Your task to perform on an android device: change notifications settings Image 0: 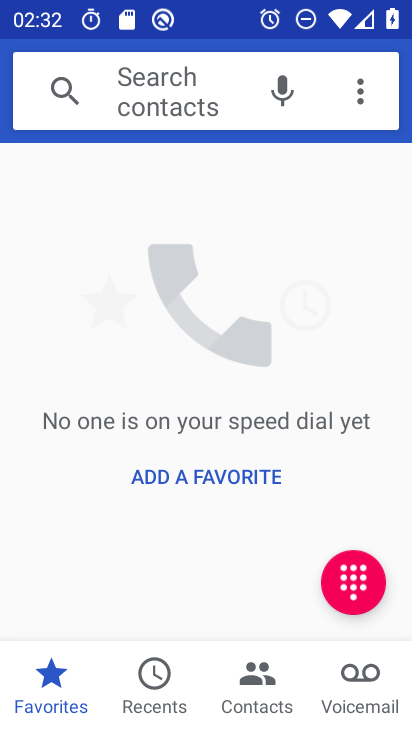
Step 0: press home button
Your task to perform on an android device: change notifications settings Image 1: 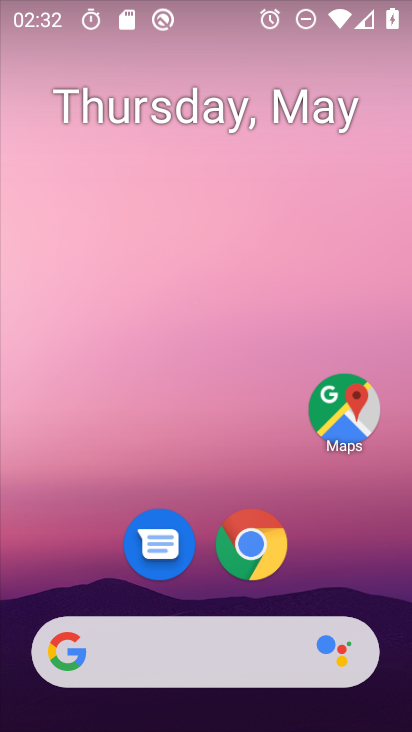
Step 1: drag from (365, 510) to (327, 123)
Your task to perform on an android device: change notifications settings Image 2: 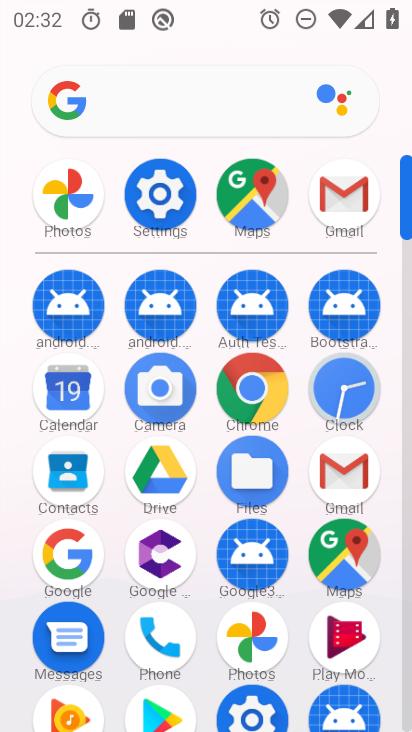
Step 2: click (166, 206)
Your task to perform on an android device: change notifications settings Image 3: 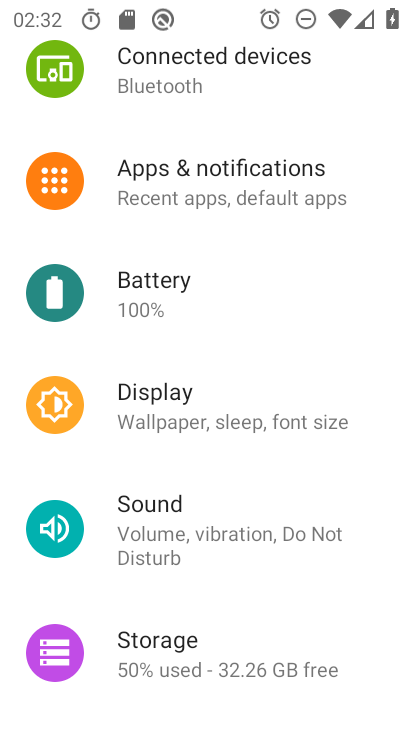
Step 3: drag from (387, 679) to (376, 500)
Your task to perform on an android device: change notifications settings Image 4: 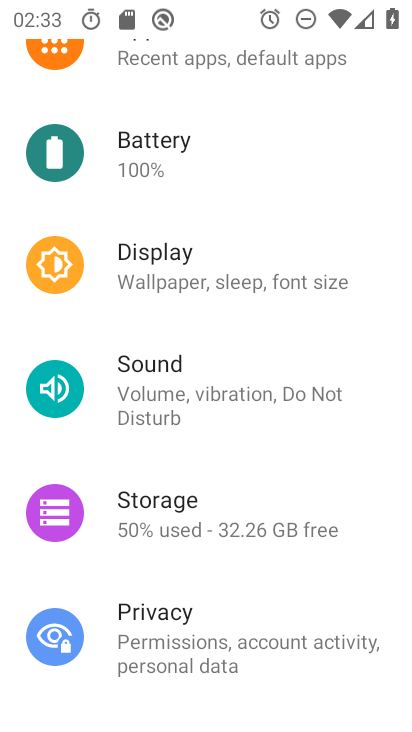
Step 4: drag from (366, 690) to (370, 563)
Your task to perform on an android device: change notifications settings Image 5: 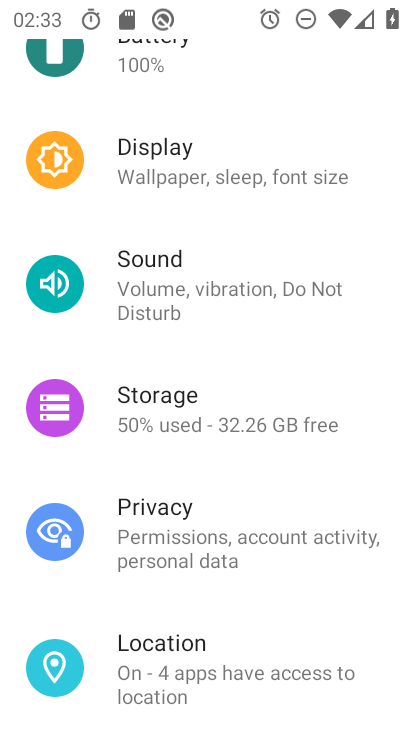
Step 5: drag from (368, 719) to (373, 631)
Your task to perform on an android device: change notifications settings Image 6: 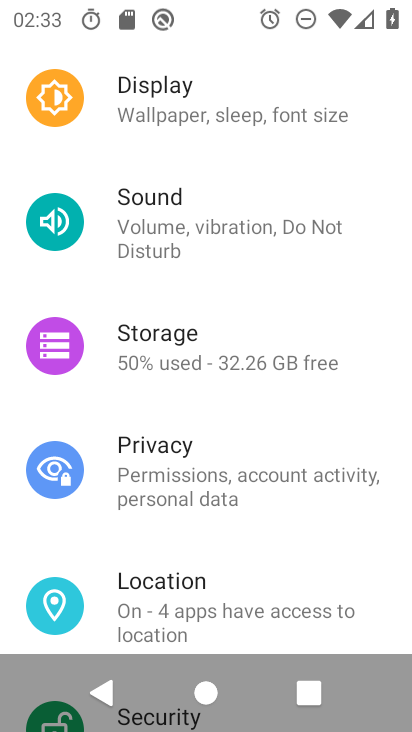
Step 6: drag from (373, 637) to (368, 555)
Your task to perform on an android device: change notifications settings Image 7: 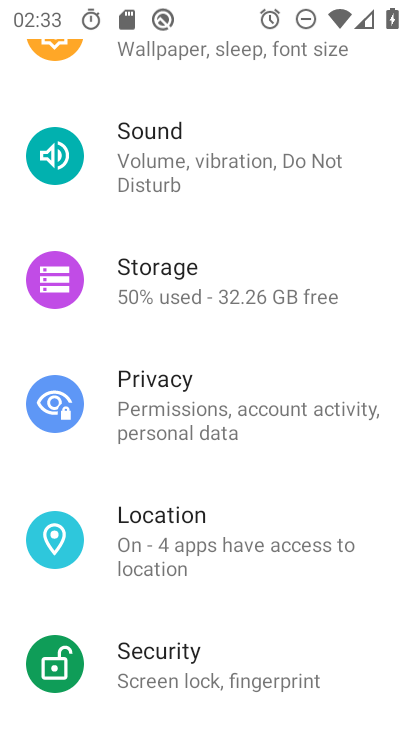
Step 7: drag from (349, 634) to (344, 517)
Your task to perform on an android device: change notifications settings Image 8: 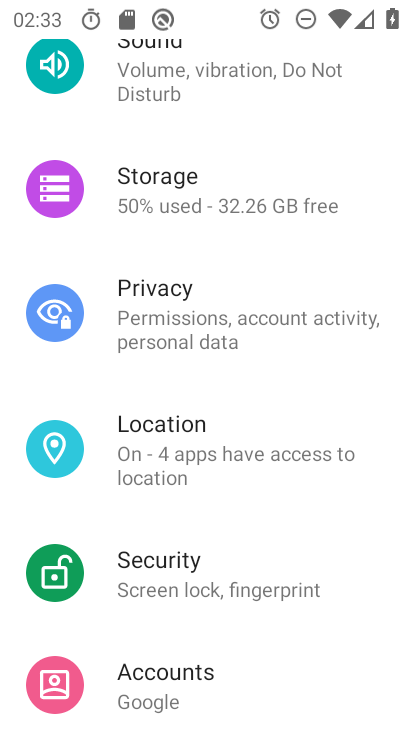
Step 8: drag from (349, 673) to (346, 501)
Your task to perform on an android device: change notifications settings Image 9: 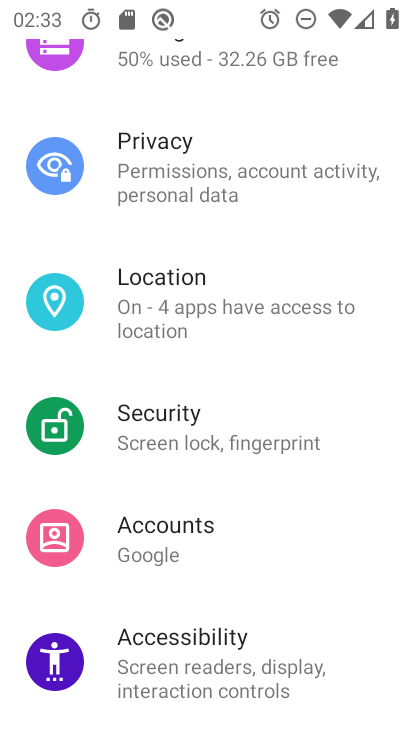
Step 9: drag from (361, 391) to (356, 483)
Your task to perform on an android device: change notifications settings Image 10: 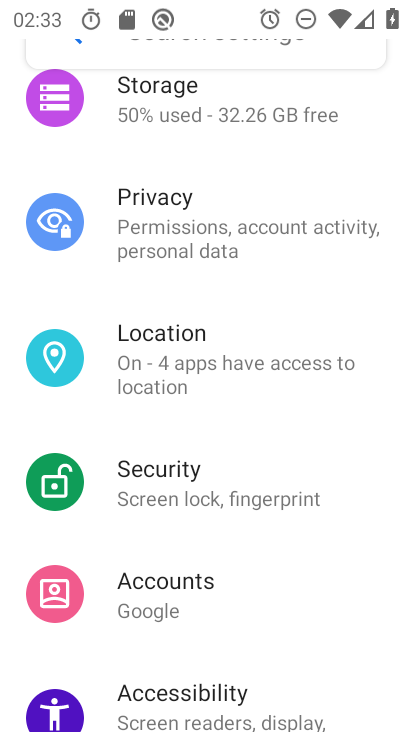
Step 10: drag from (334, 642) to (345, 480)
Your task to perform on an android device: change notifications settings Image 11: 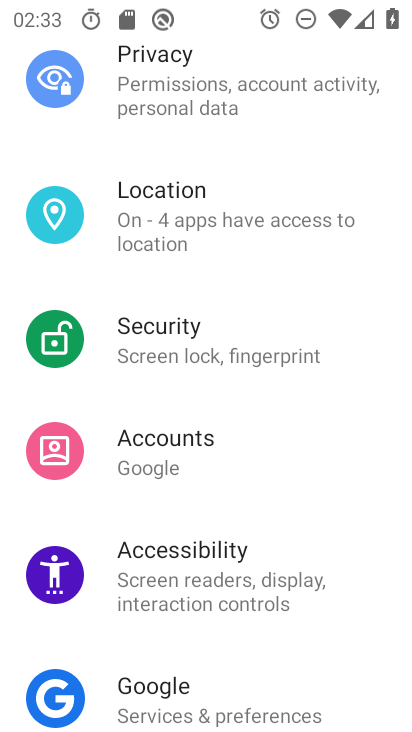
Step 11: drag from (352, 323) to (350, 521)
Your task to perform on an android device: change notifications settings Image 12: 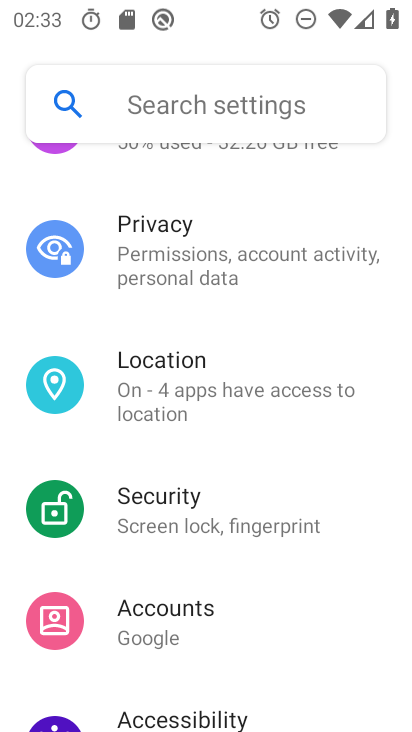
Step 12: drag from (344, 281) to (337, 446)
Your task to perform on an android device: change notifications settings Image 13: 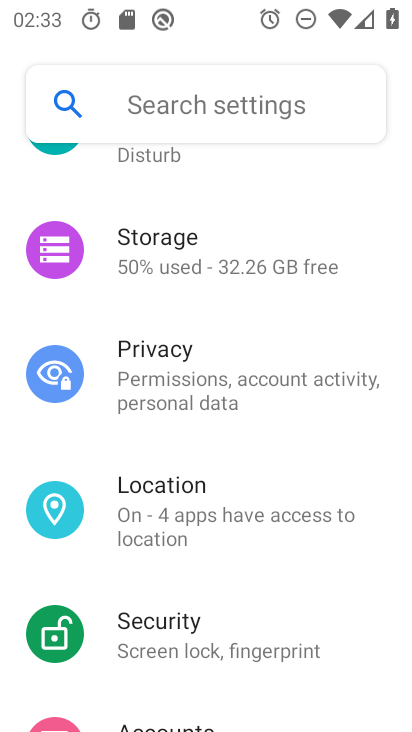
Step 13: drag from (343, 291) to (360, 432)
Your task to perform on an android device: change notifications settings Image 14: 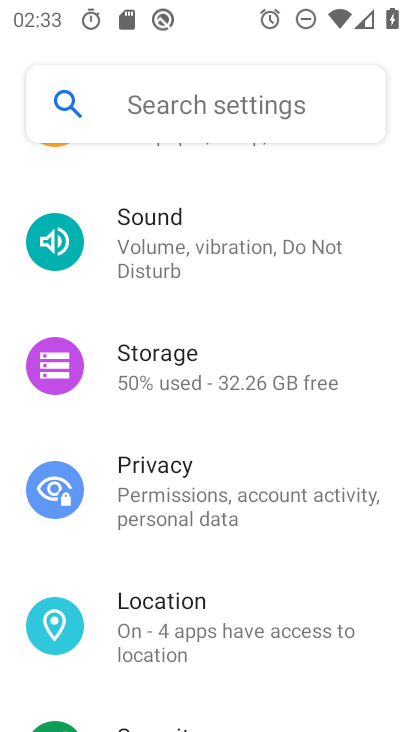
Step 14: drag from (348, 261) to (372, 349)
Your task to perform on an android device: change notifications settings Image 15: 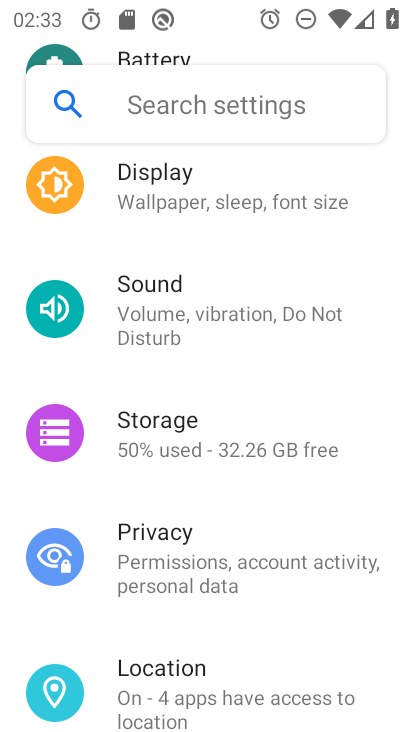
Step 15: drag from (395, 288) to (392, 488)
Your task to perform on an android device: change notifications settings Image 16: 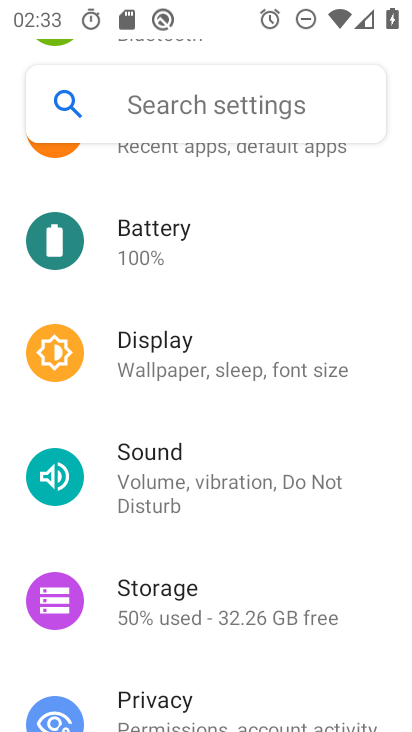
Step 16: drag from (358, 328) to (353, 467)
Your task to perform on an android device: change notifications settings Image 17: 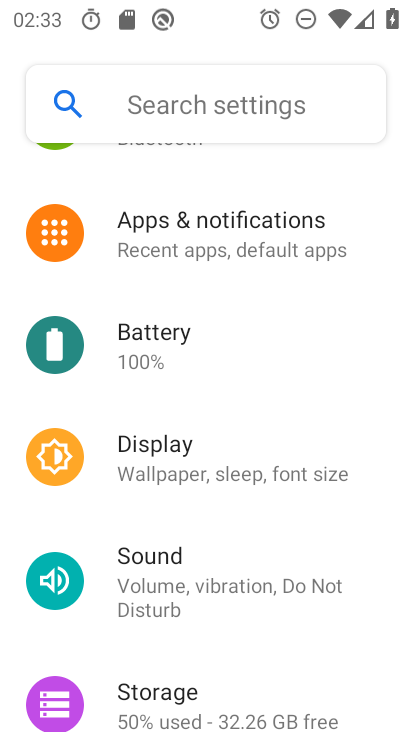
Step 17: click (304, 256)
Your task to perform on an android device: change notifications settings Image 18: 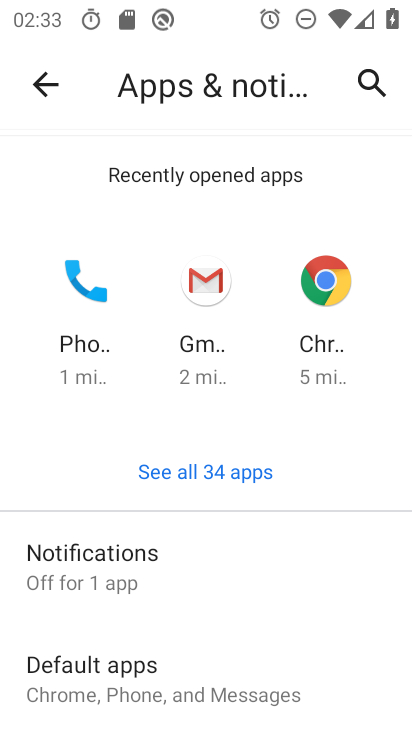
Step 18: drag from (326, 597) to (332, 486)
Your task to perform on an android device: change notifications settings Image 19: 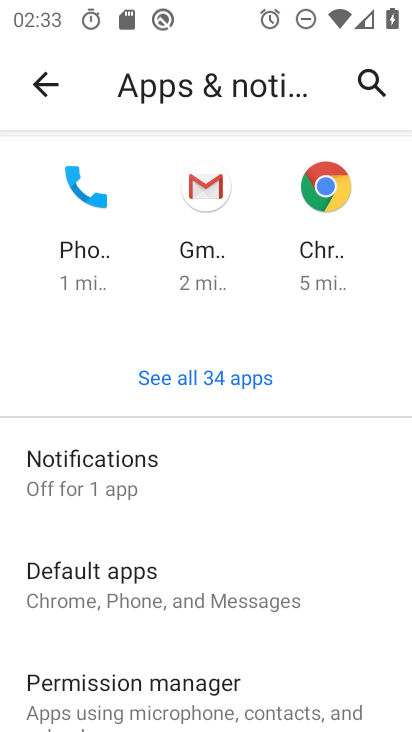
Step 19: click (85, 494)
Your task to perform on an android device: change notifications settings Image 20: 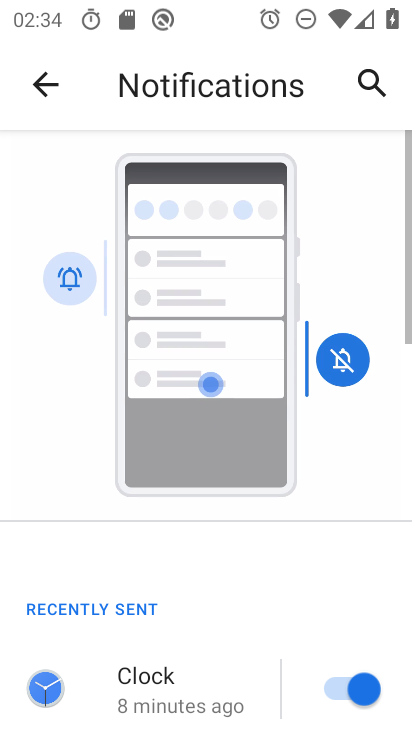
Step 20: drag from (250, 593) to (268, 380)
Your task to perform on an android device: change notifications settings Image 21: 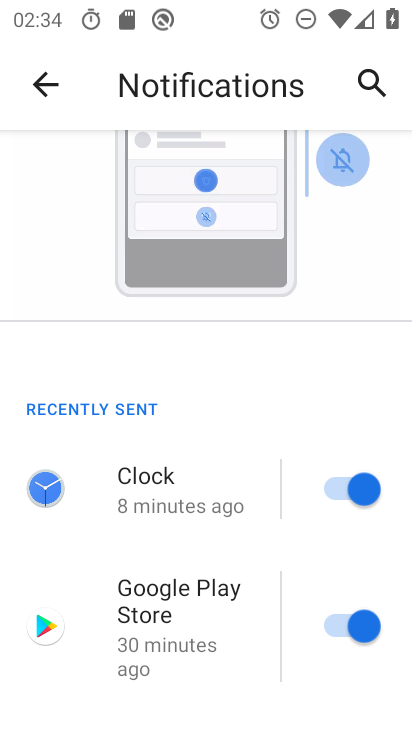
Step 21: drag from (257, 638) to (257, 420)
Your task to perform on an android device: change notifications settings Image 22: 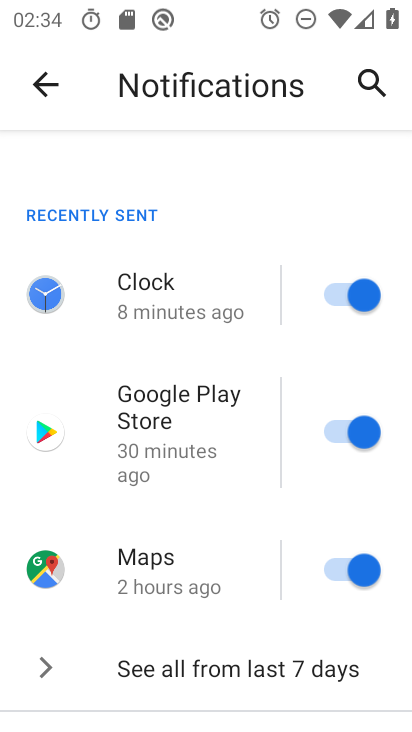
Step 22: click (360, 439)
Your task to perform on an android device: change notifications settings Image 23: 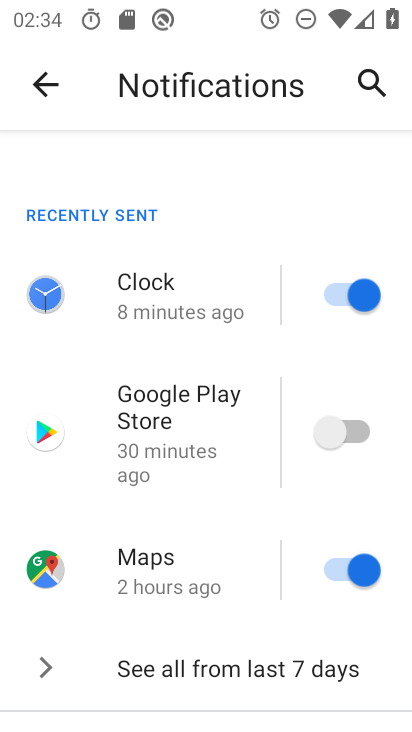
Step 23: click (358, 301)
Your task to perform on an android device: change notifications settings Image 24: 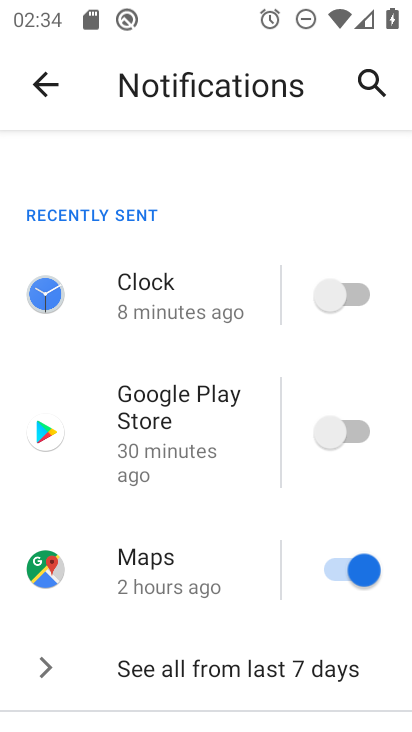
Step 24: click (344, 572)
Your task to perform on an android device: change notifications settings Image 25: 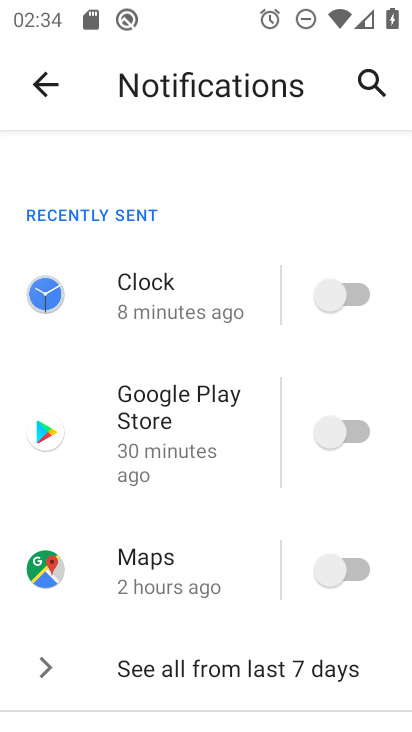
Step 25: task complete